Your task to perform on an android device: turn on notifications settings in the gmail app Image 0: 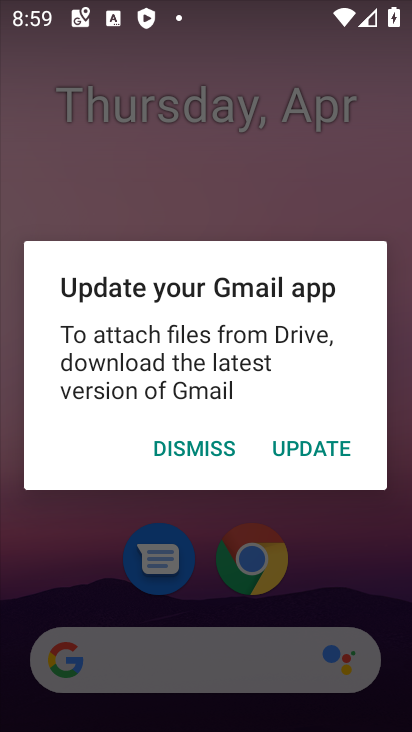
Step 0: press home button
Your task to perform on an android device: turn on notifications settings in the gmail app Image 1: 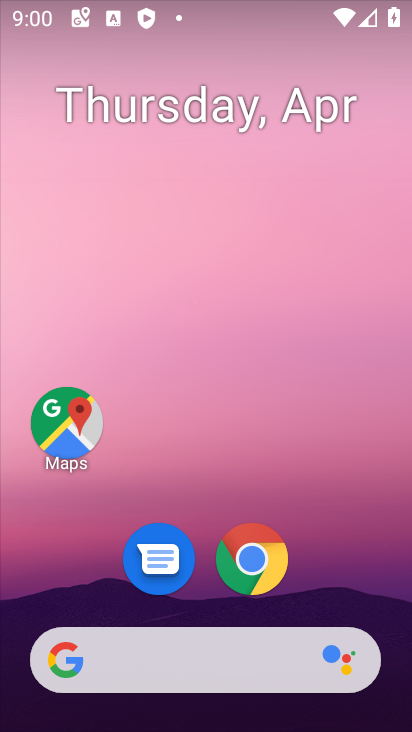
Step 1: drag from (183, 430) to (191, 116)
Your task to perform on an android device: turn on notifications settings in the gmail app Image 2: 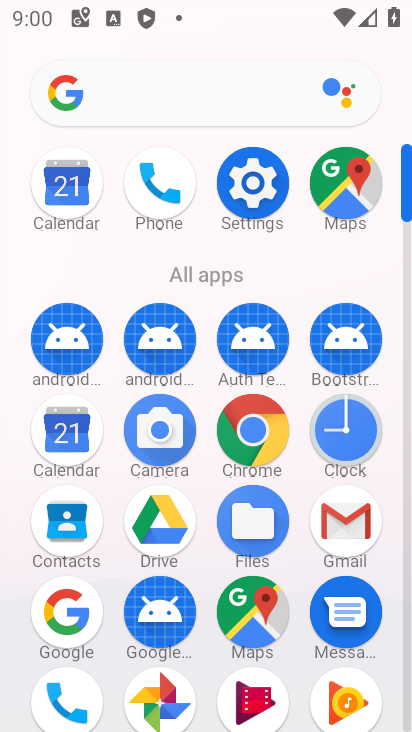
Step 2: click (339, 512)
Your task to perform on an android device: turn on notifications settings in the gmail app Image 3: 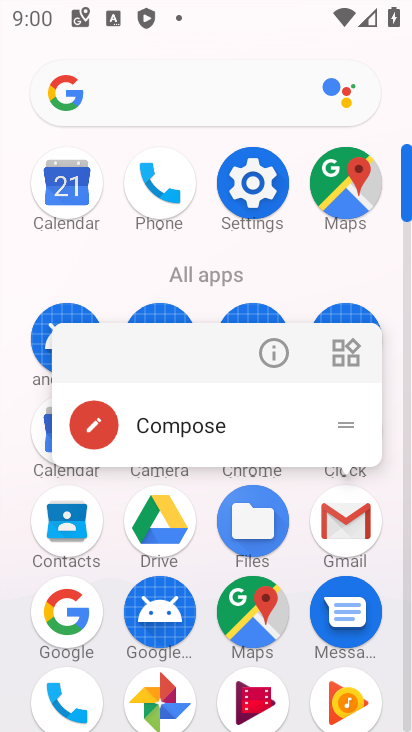
Step 3: click (277, 350)
Your task to perform on an android device: turn on notifications settings in the gmail app Image 4: 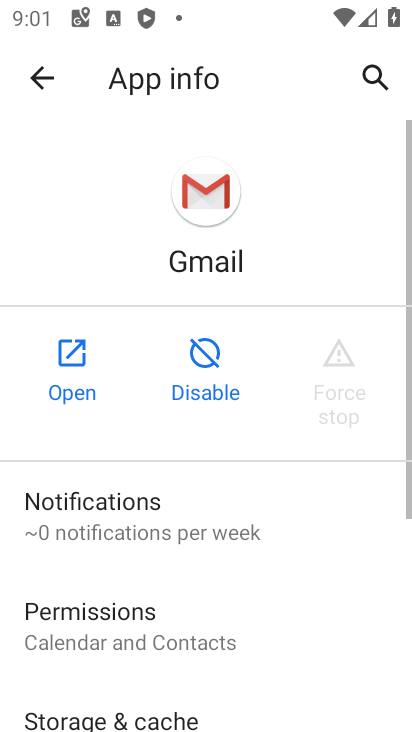
Step 4: click (92, 504)
Your task to perform on an android device: turn on notifications settings in the gmail app Image 5: 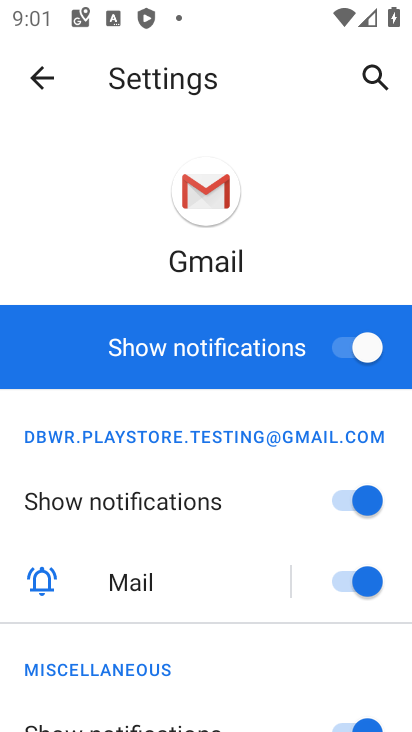
Step 5: task complete